Your task to perform on an android device: Open wifi settings Image 0: 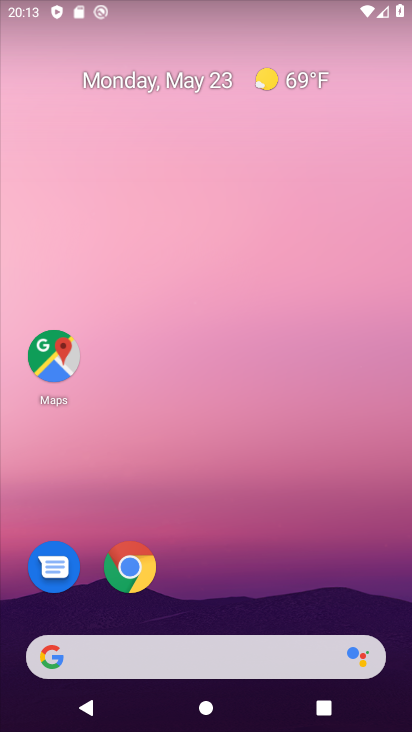
Step 0: drag from (201, 603) to (221, 80)
Your task to perform on an android device: Open wifi settings Image 1: 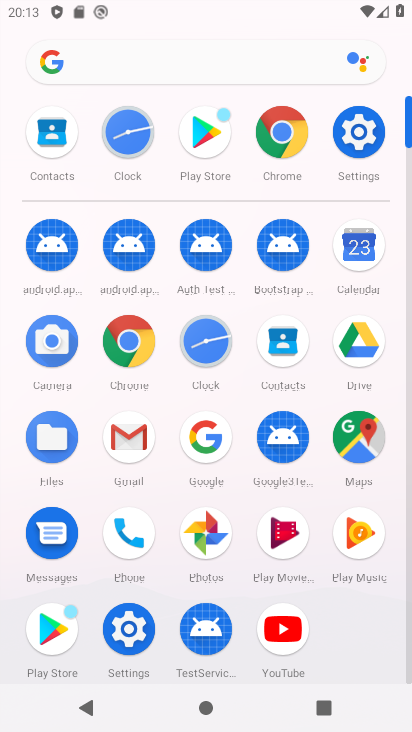
Step 1: click (364, 152)
Your task to perform on an android device: Open wifi settings Image 2: 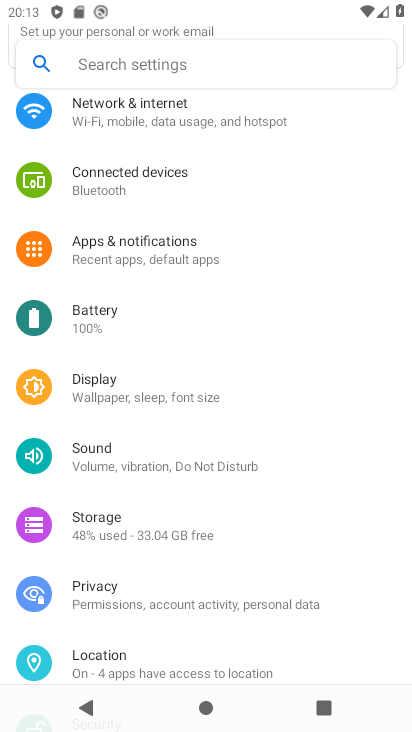
Step 2: drag from (201, 211) to (182, 333)
Your task to perform on an android device: Open wifi settings Image 3: 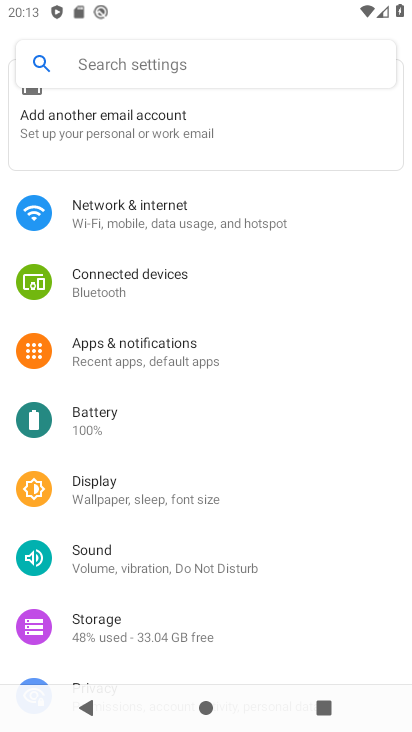
Step 3: click (150, 233)
Your task to perform on an android device: Open wifi settings Image 4: 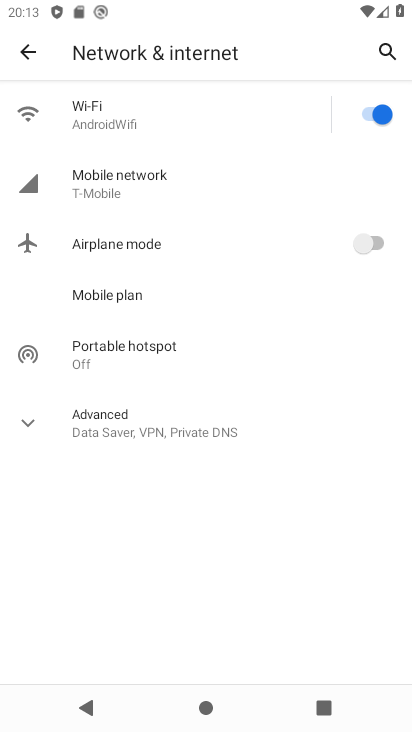
Step 4: click (178, 110)
Your task to perform on an android device: Open wifi settings Image 5: 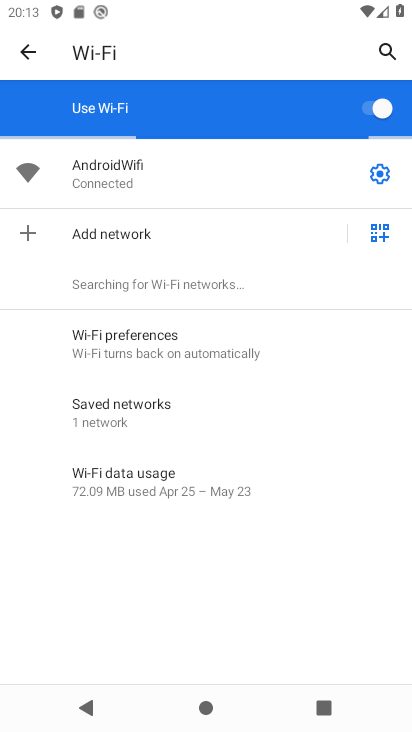
Step 5: task complete